Your task to perform on an android device: check the backup settings in the google photos Image 0: 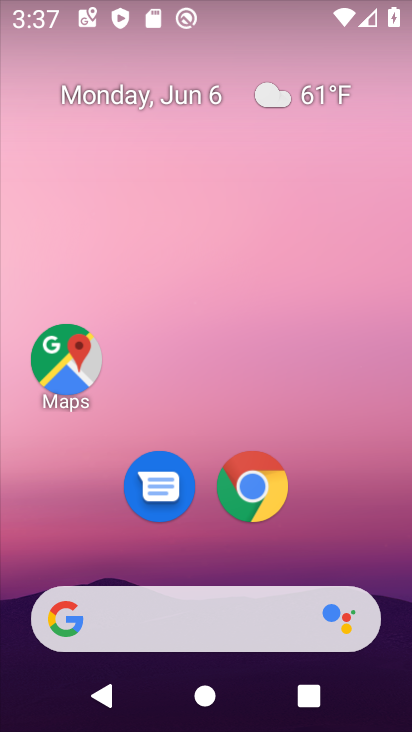
Step 0: drag from (316, 496) to (300, 91)
Your task to perform on an android device: check the backup settings in the google photos Image 1: 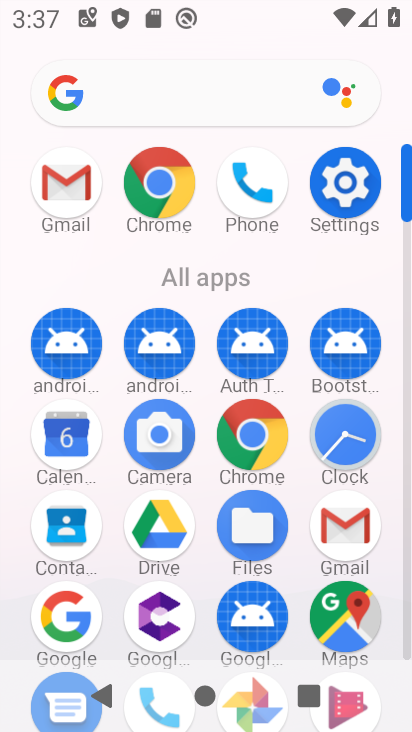
Step 1: drag from (297, 621) to (328, 210)
Your task to perform on an android device: check the backup settings in the google photos Image 2: 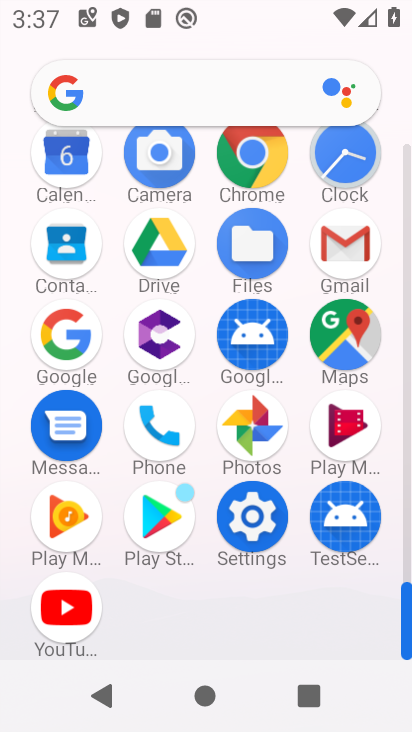
Step 2: click (253, 440)
Your task to perform on an android device: check the backup settings in the google photos Image 3: 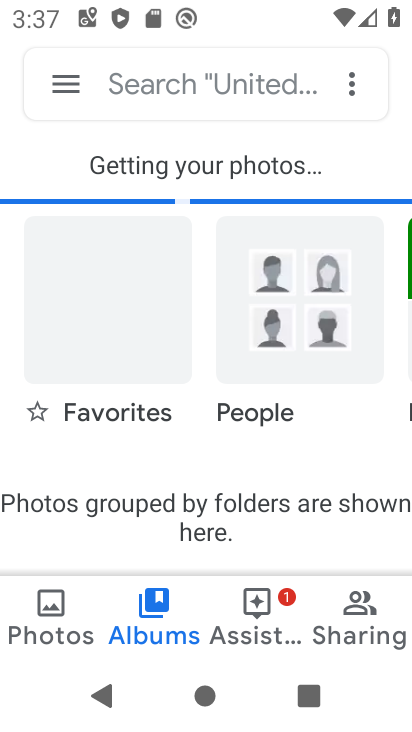
Step 3: click (60, 89)
Your task to perform on an android device: check the backup settings in the google photos Image 4: 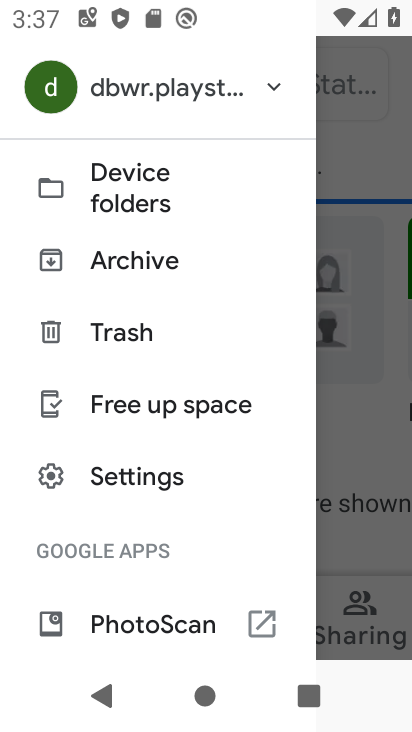
Step 4: drag from (108, 536) to (114, 300)
Your task to perform on an android device: check the backup settings in the google photos Image 5: 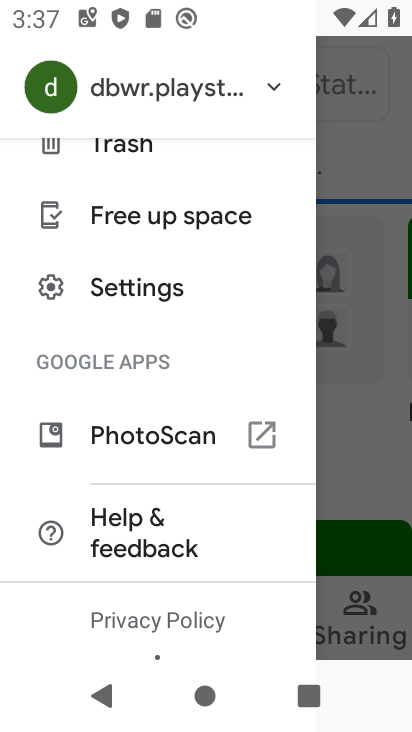
Step 5: click (114, 298)
Your task to perform on an android device: check the backup settings in the google photos Image 6: 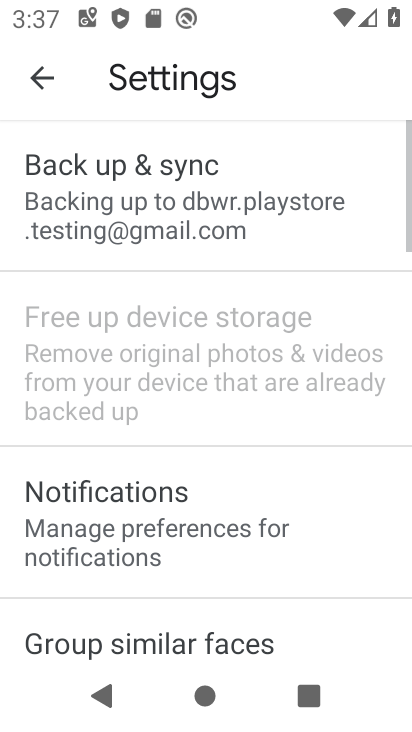
Step 6: click (167, 219)
Your task to perform on an android device: check the backup settings in the google photos Image 7: 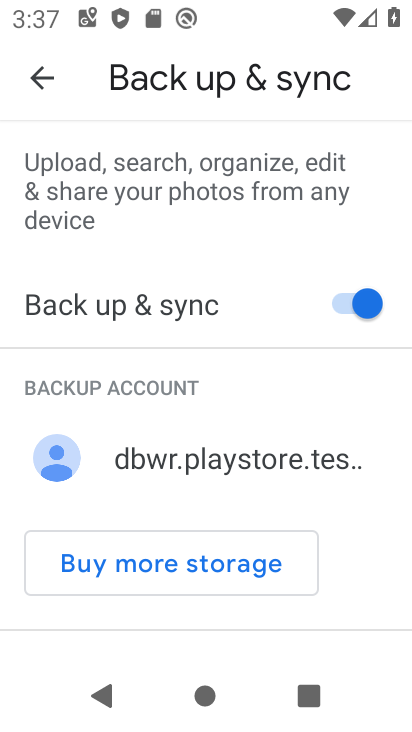
Step 7: task complete